Your task to perform on an android device: delete browsing data in the chrome app Image 0: 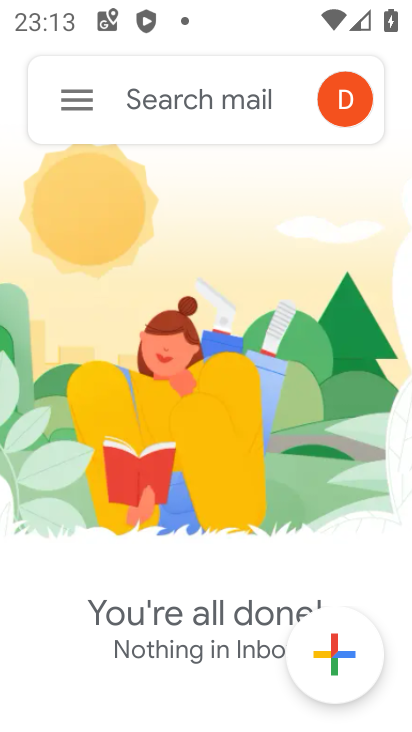
Step 0: press home button
Your task to perform on an android device: delete browsing data in the chrome app Image 1: 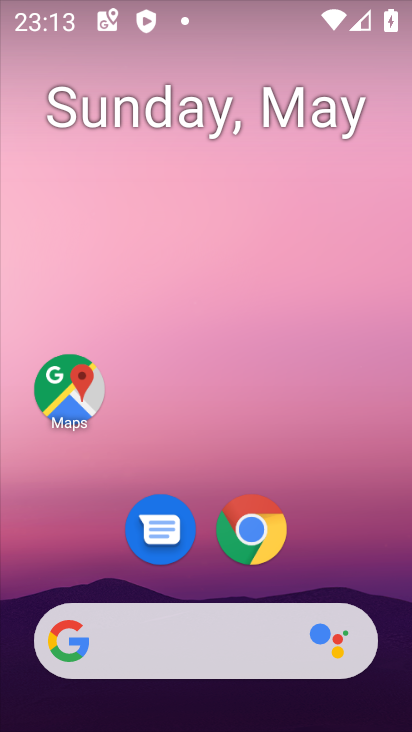
Step 1: click (267, 540)
Your task to perform on an android device: delete browsing data in the chrome app Image 2: 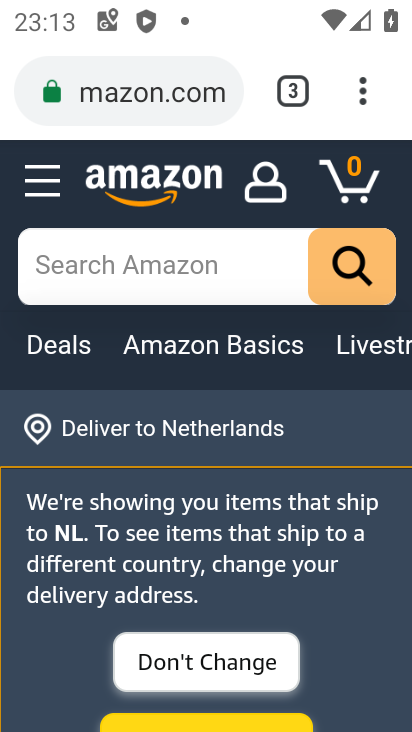
Step 2: click (374, 99)
Your task to perform on an android device: delete browsing data in the chrome app Image 3: 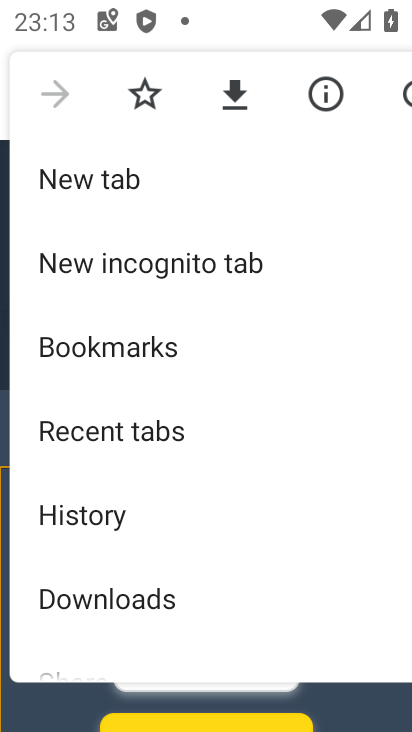
Step 3: click (118, 495)
Your task to perform on an android device: delete browsing data in the chrome app Image 4: 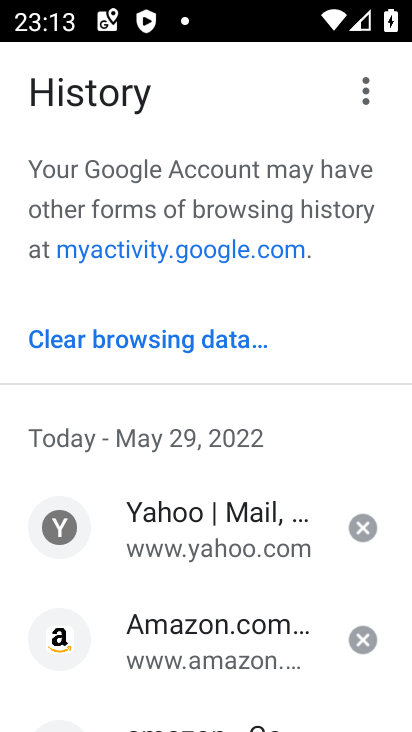
Step 4: click (147, 347)
Your task to perform on an android device: delete browsing data in the chrome app Image 5: 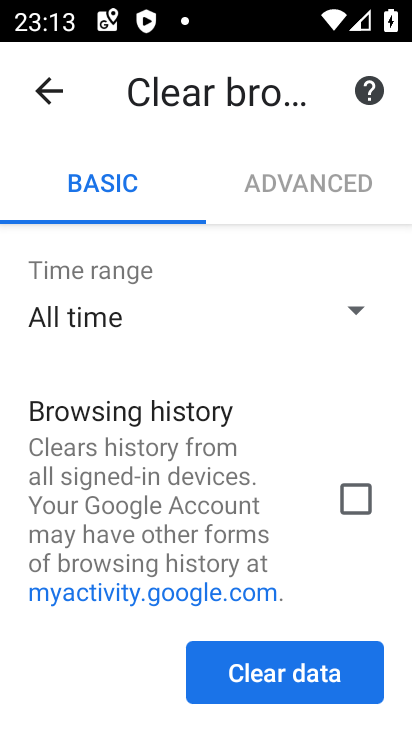
Step 5: click (339, 494)
Your task to perform on an android device: delete browsing data in the chrome app Image 6: 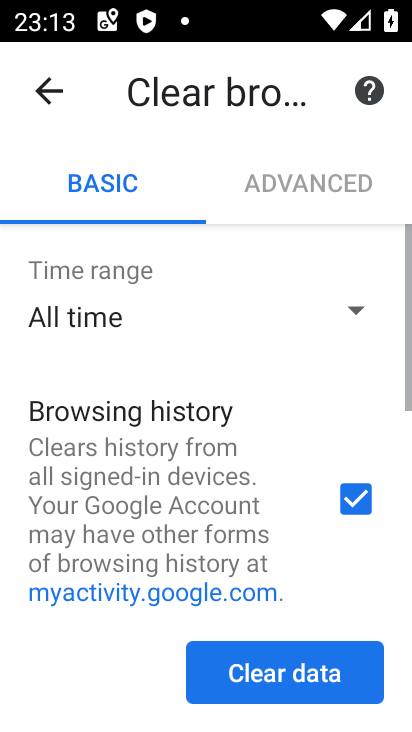
Step 6: click (336, 678)
Your task to perform on an android device: delete browsing data in the chrome app Image 7: 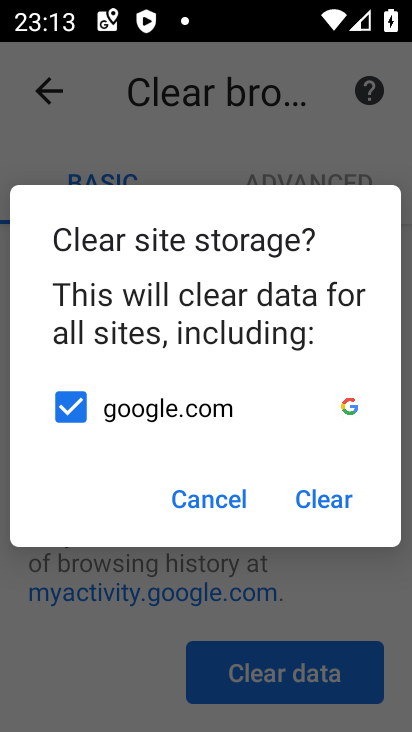
Step 7: task complete